Your task to perform on an android device: Go to ESPN.com Image 0: 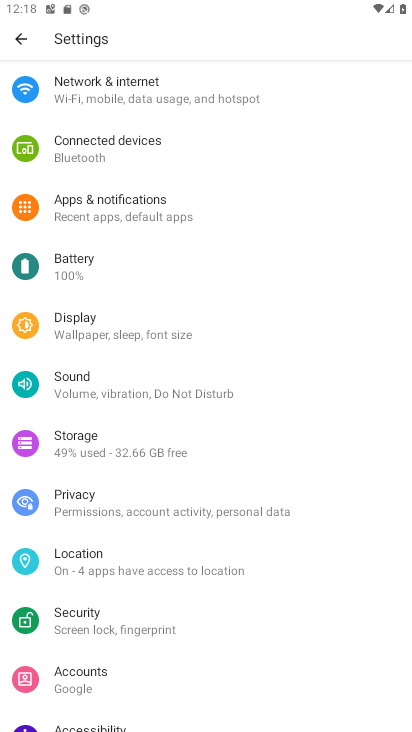
Step 0: press home button
Your task to perform on an android device: Go to ESPN.com Image 1: 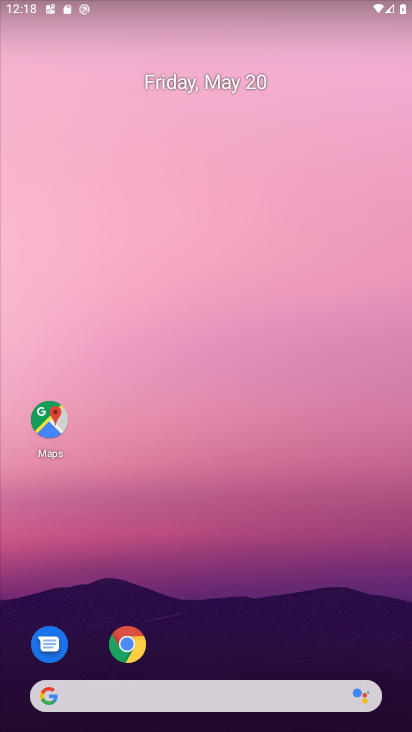
Step 1: click (122, 631)
Your task to perform on an android device: Go to ESPN.com Image 2: 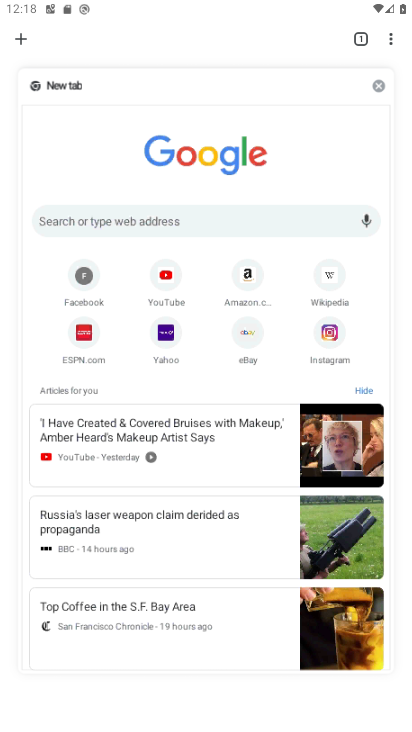
Step 2: click (79, 340)
Your task to perform on an android device: Go to ESPN.com Image 3: 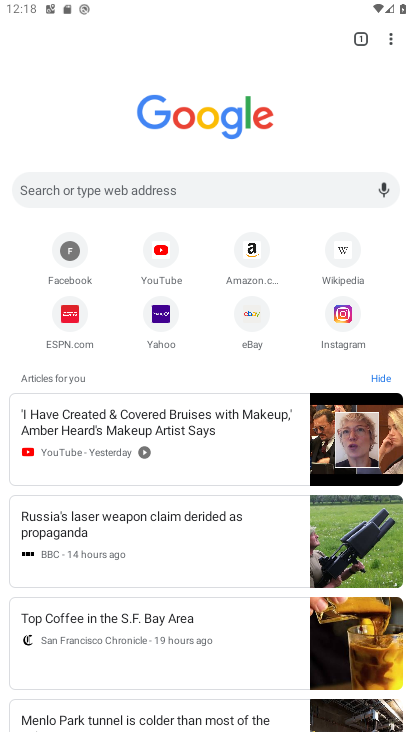
Step 3: click (78, 316)
Your task to perform on an android device: Go to ESPN.com Image 4: 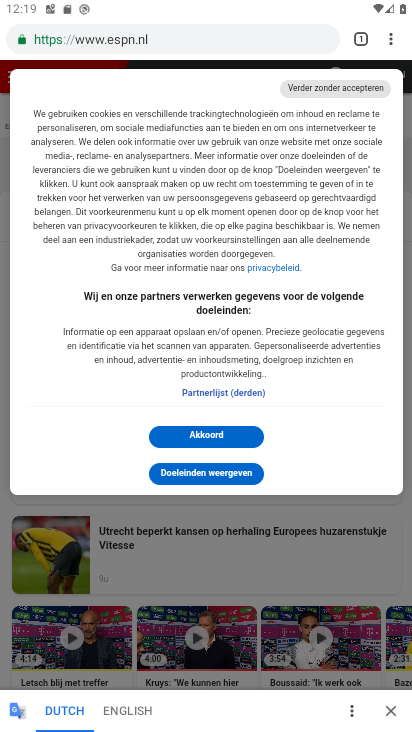
Step 4: task complete